Your task to perform on an android device: Go to settings Image 0: 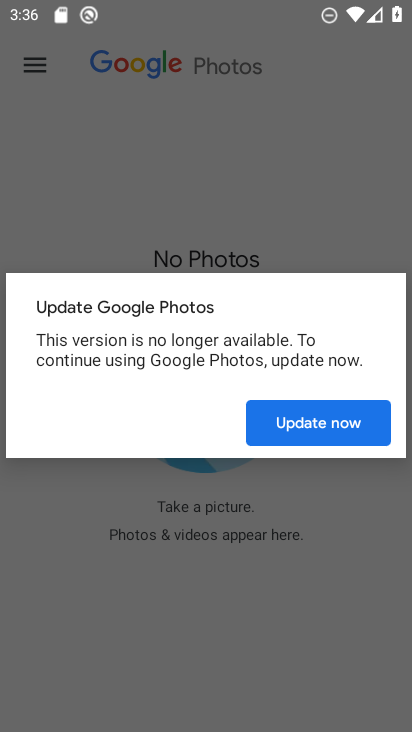
Step 0: press home button
Your task to perform on an android device: Go to settings Image 1: 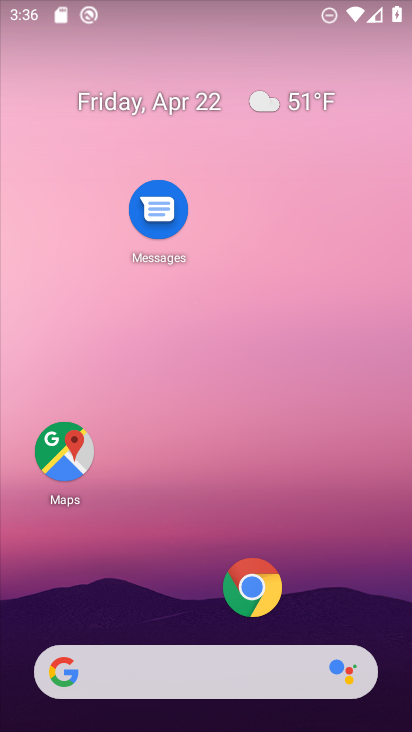
Step 1: drag from (202, 615) to (202, 226)
Your task to perform on an android device: Go to settings Image 2: 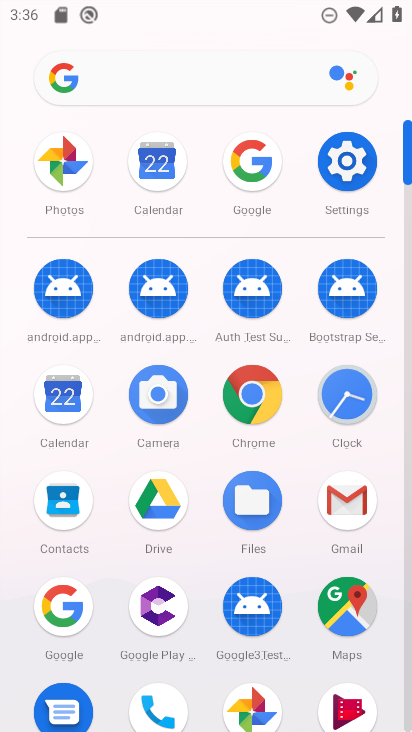
Step 2: click (339, 157)
Your task to perform on an android device: Go to settings Image 3: 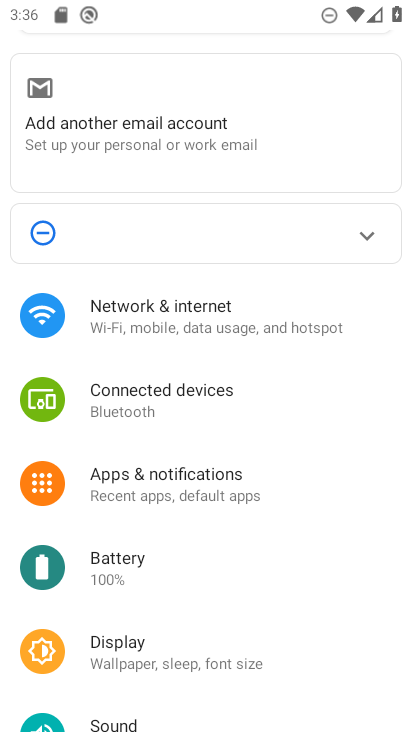
Step 3: task complete